Your task to perform on an android device: turn on airplane mode Image 0: 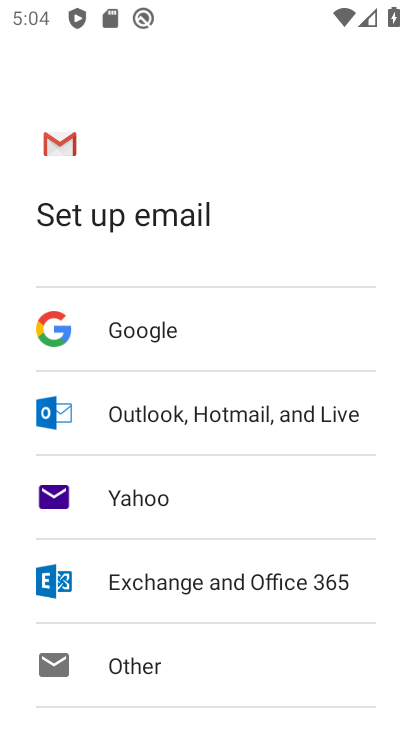
Step 0: press home button
Your task to perform on an android device: turn on airplane mode Image 1: 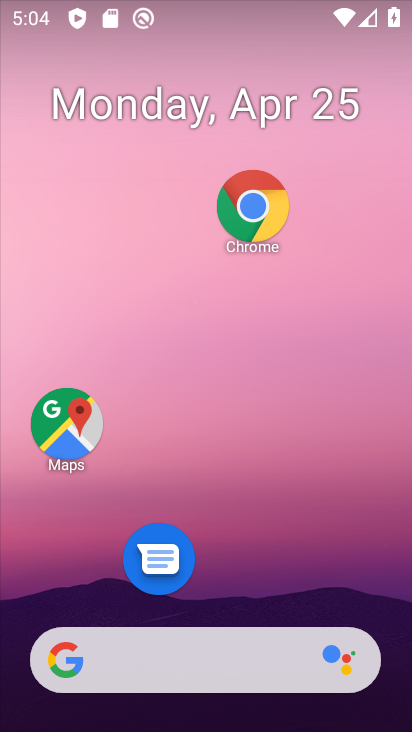
Step 1: drag from (266, 547) to (325, 114)
Your task to perform on an android device: turn on airplane mode Image 2: 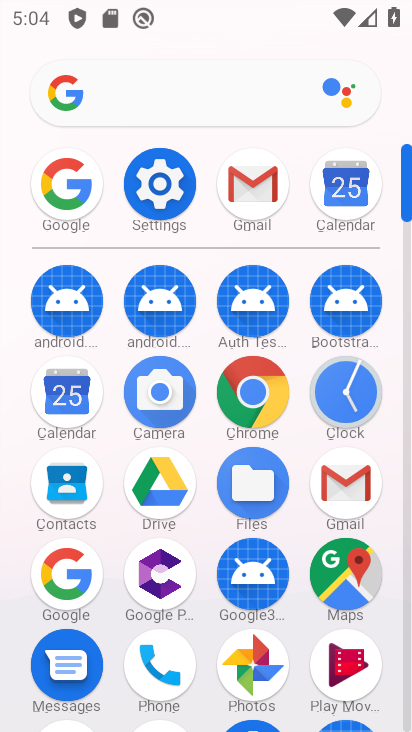
Step 2: click (158, 217)
Your task to perform on an android device: turn on airplane mode Image 3: 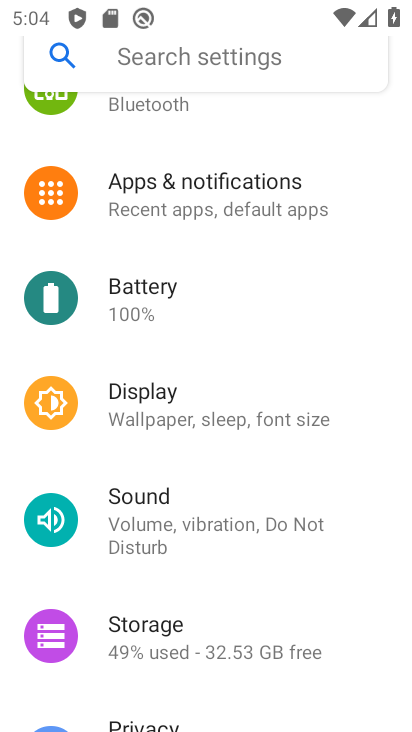
Step 3: drag from (236, 122) to (241, 349)
Your task to perform on an android device: turn on airplane mode Image 4: 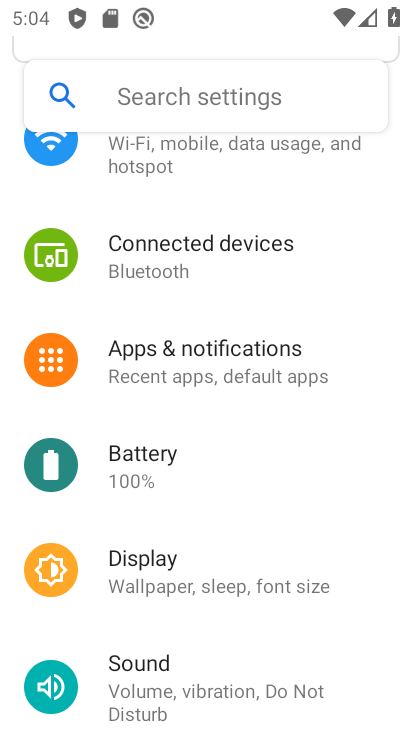
Step 4: click (217, 147)
Your task to perform on an android device: turn on airplane mode Image 5: 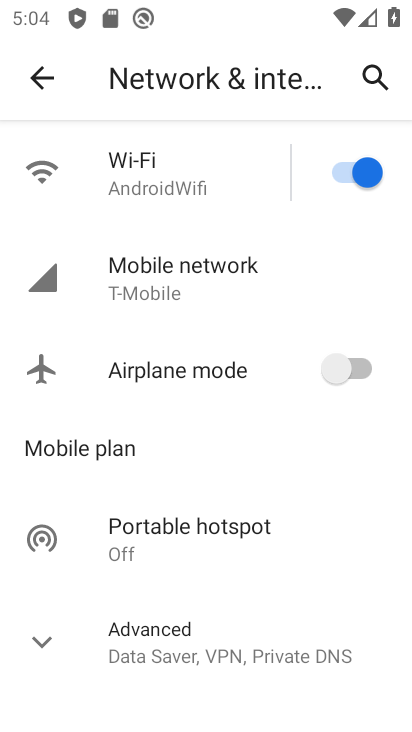
Step 5: click (365, 368)
Your task to perform on an android device: turn on airplane mode Image 6: 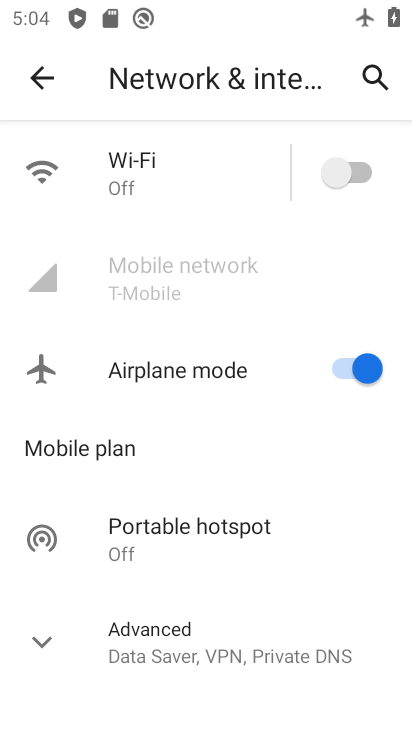
Step 6: task complete